Your task to perform on an android device: turn off location history Image 0: 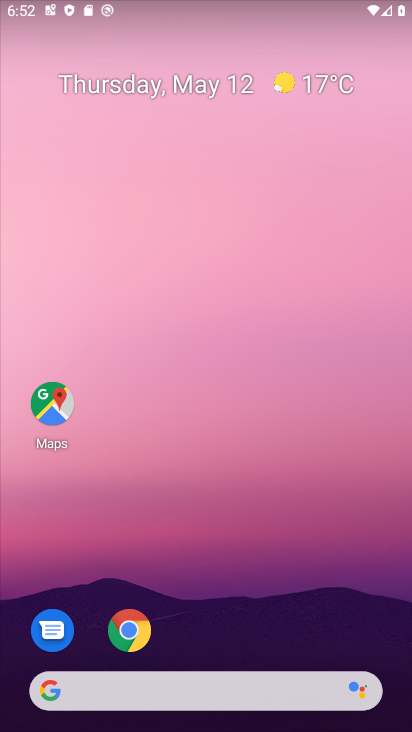
Step 0: drag from (277, 617) to (300, 42)
Your task to perform on an android device: turn off location history Image 1: 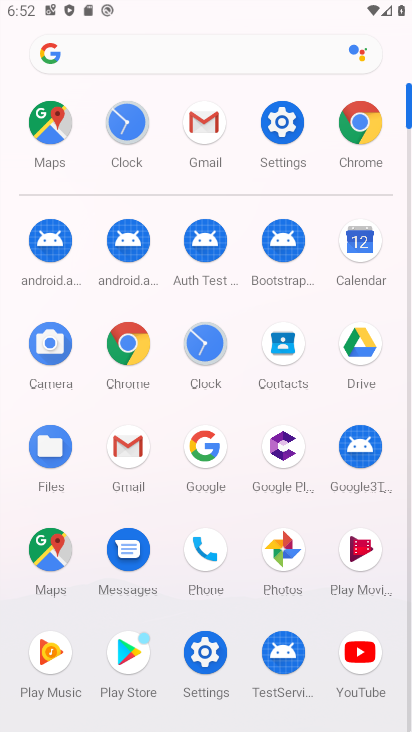
Step 1: click (189, 655)
Your task to perform on an android device: turn off location history Image 2: 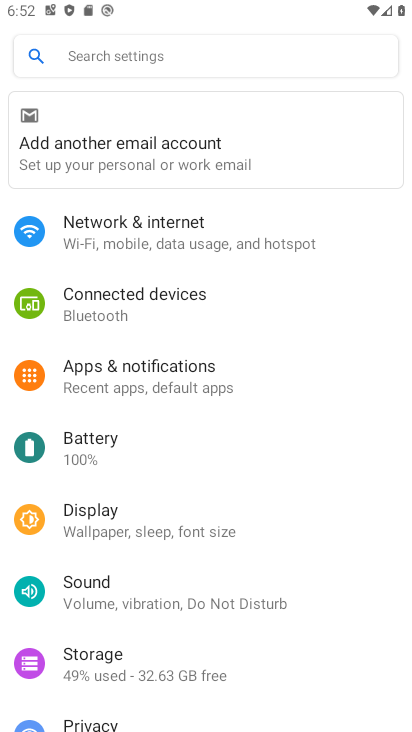
Step 2: drag from (191, 656) to (212, 335)
Your task to perform on an android device: turn off location history Image 3: 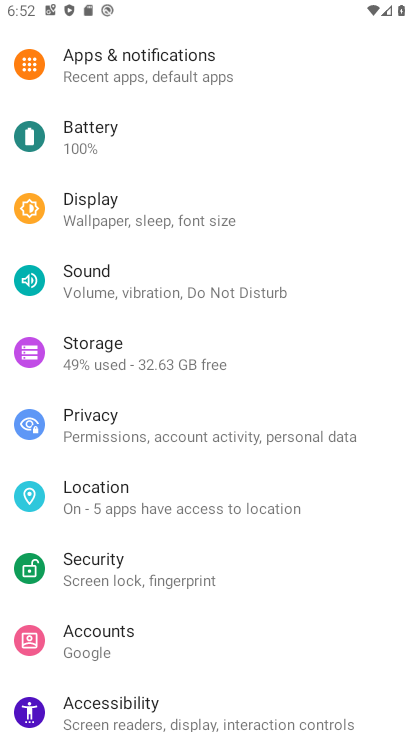
Step 3: click (152, 493)
Your task to perform on an android device: turn off location history Image 4: 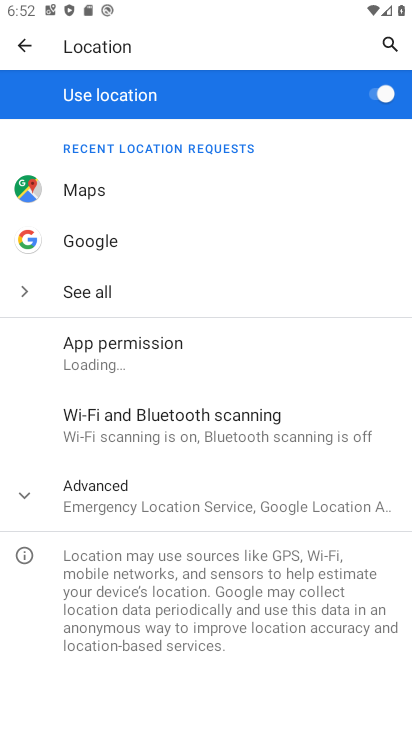
Step 4: click (109, 488)
Your task to perform on an android device: turn off location history Image 5: 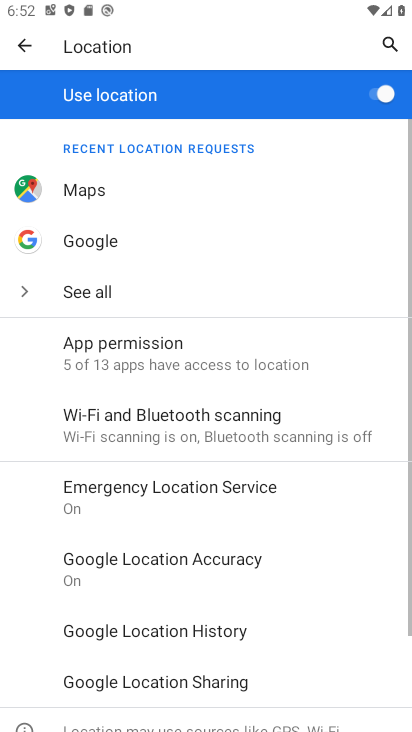
Step 5: click (153, 609)
Your task to perform on an android device: turn off location history Image 6: 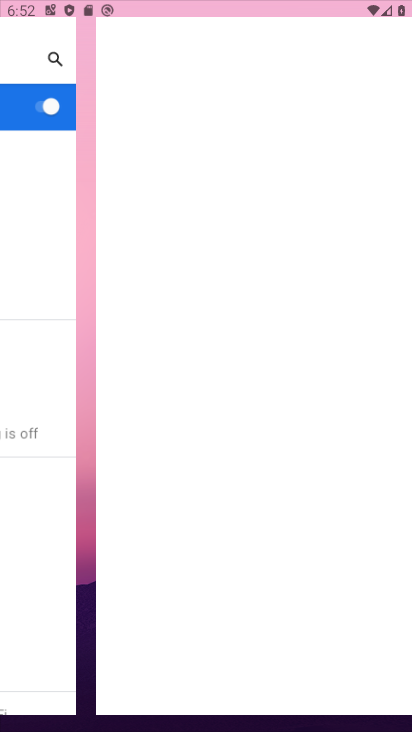
Step 6: click (169, 626)
Your task to perform on an android device: turn off location history Image 7: 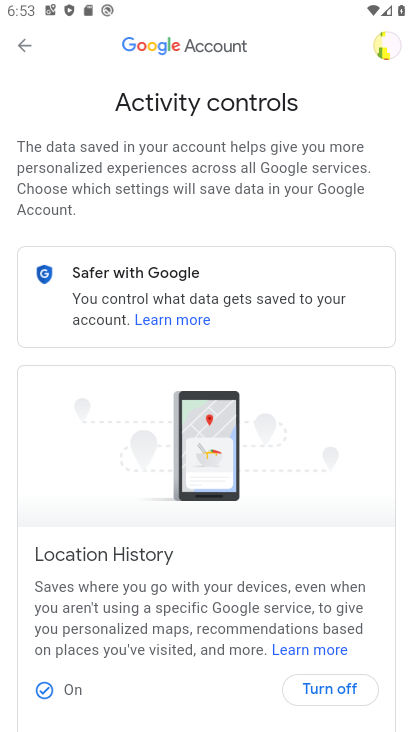
Step 7: drag from (303, 578) to (203, 216)
Your task to perform on an android device: turn off location history Image 8: 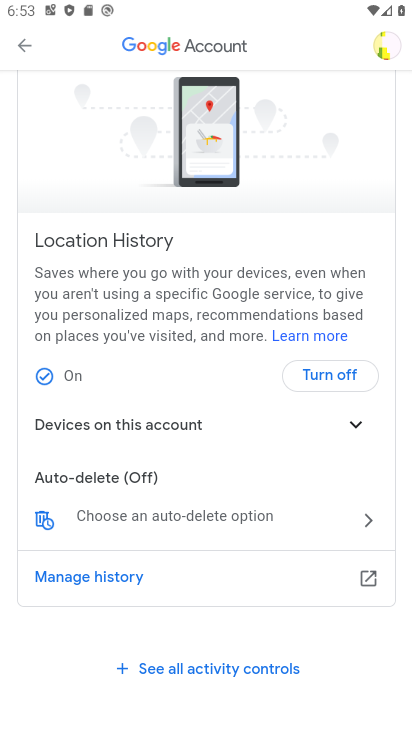
Step 8: click (328, 381)
Your task to perform on an android device: turn off location history Image 9: 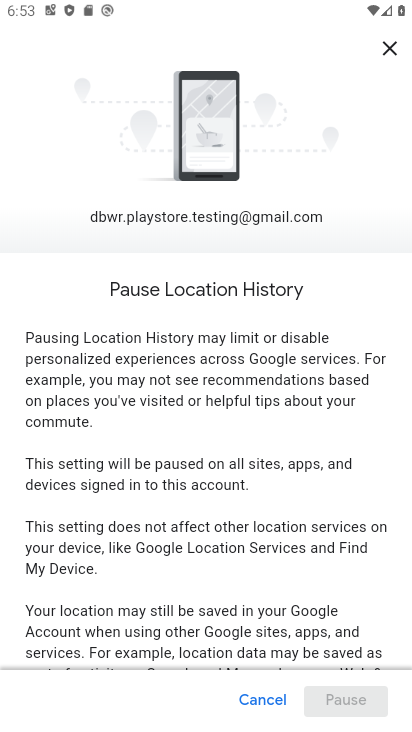
Step 9: click (269, 706)
Your task to perform on an android device: turn off location history Image 10: 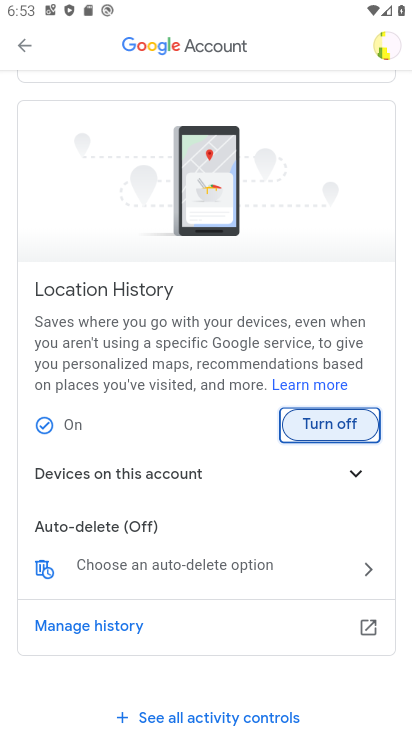
Step 10: task complete